Your task to perform on an android device: Open notification settings Image 0: 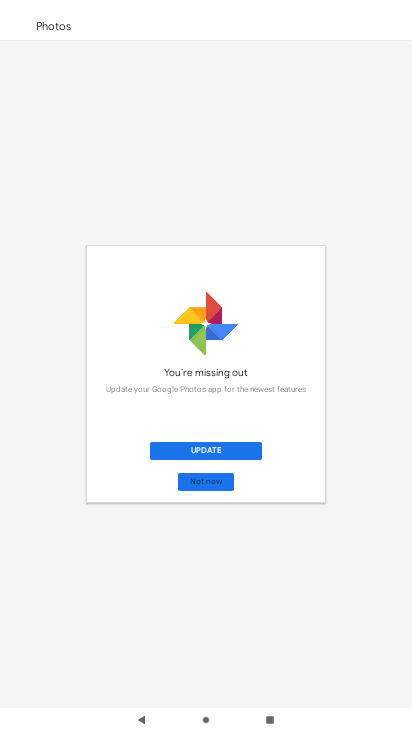
Step 0: press home button
Your task to perform on an android device: Open notification settings Image 1: 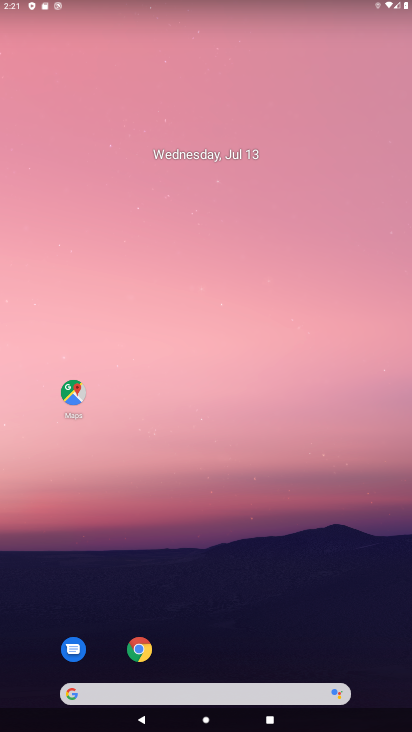
Step 1: drag from (226, 588) to (199, 255)
Your task to perform on an android device: Open notification settings Image 2: 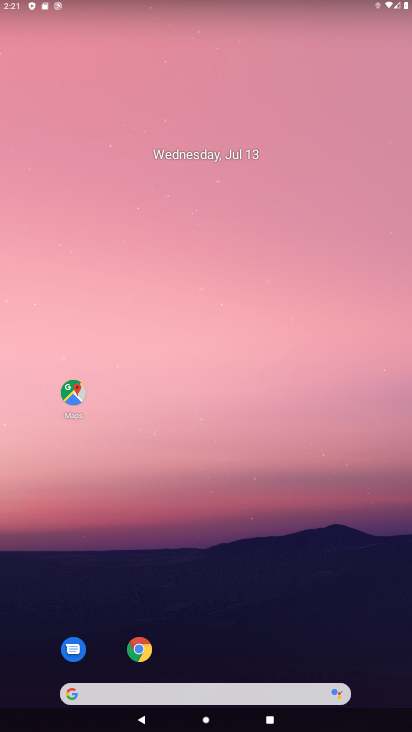
Step 2: drag from (213, 571) to (248, 79)
Your task to perform on an android device: Open notification settings Image 3: 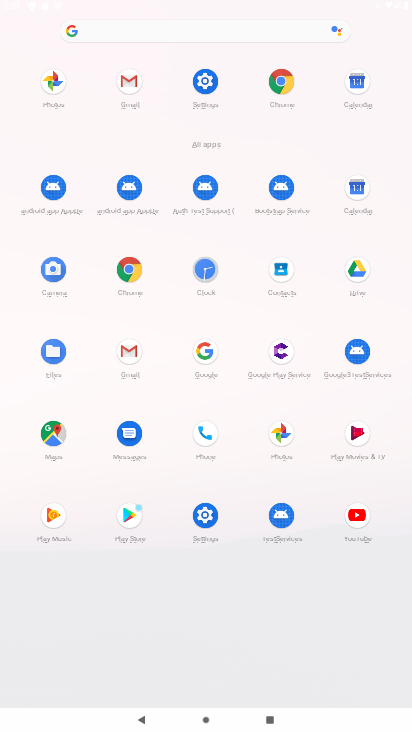
Step 3: click (204, 84)
Your task to perform on an android device: Open notification settings Image 4: 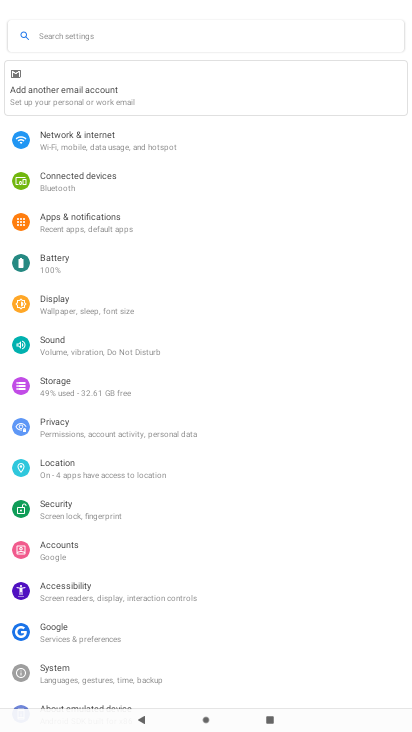
Step 4: click (77, 211)
Your task to perform on an android device: Open notification settings Image 5: 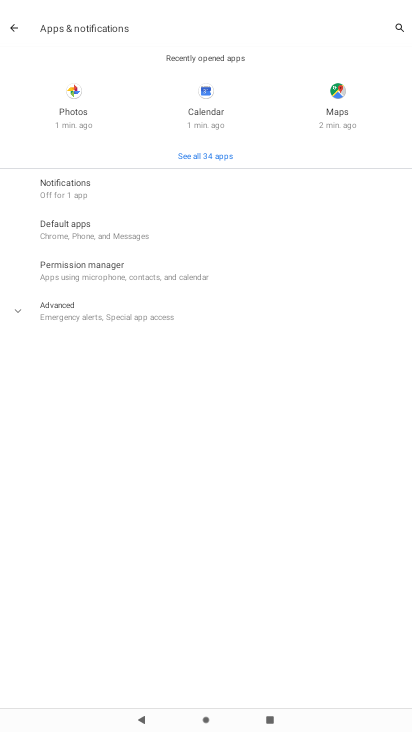
Step 5: task complete